Your task to perform on an android device: What's on my calendar today? Image 0: 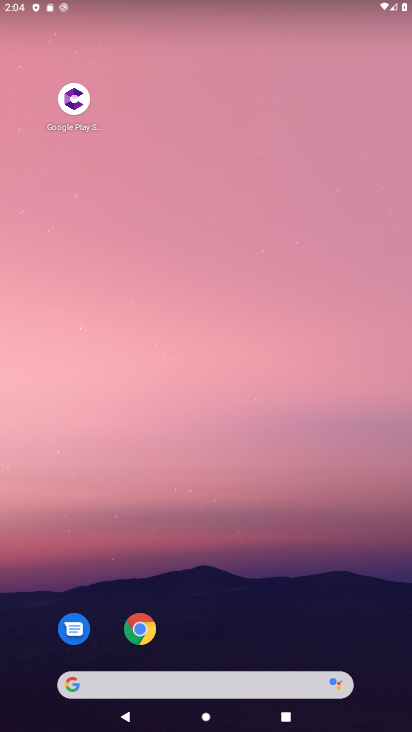
Step 0: drag from (135, 518) to (285, 252)
Your task to perform on an android device: What's on my calendar today? Image 1: 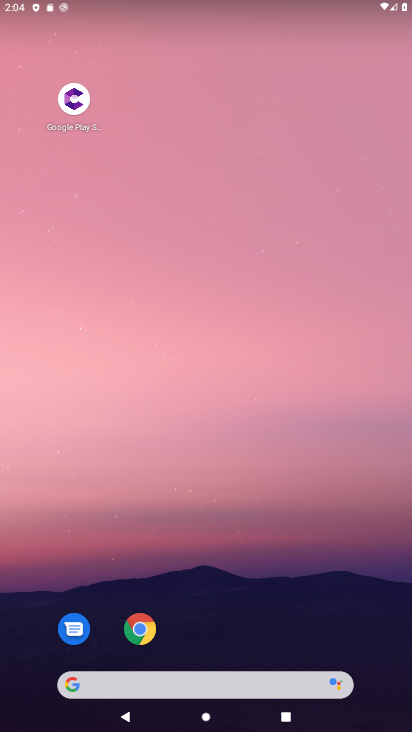
Step 1: drag from (27, 680) to (277, 32)
Your task to perform on an android device: What's on my calendar today? Image 2: 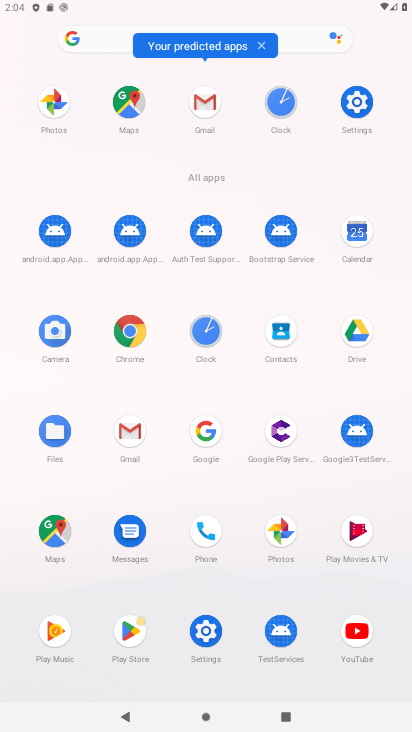
Step 2: click (357, 235)
Your task to perform on an android device: What's on my calendar today? Image 3: 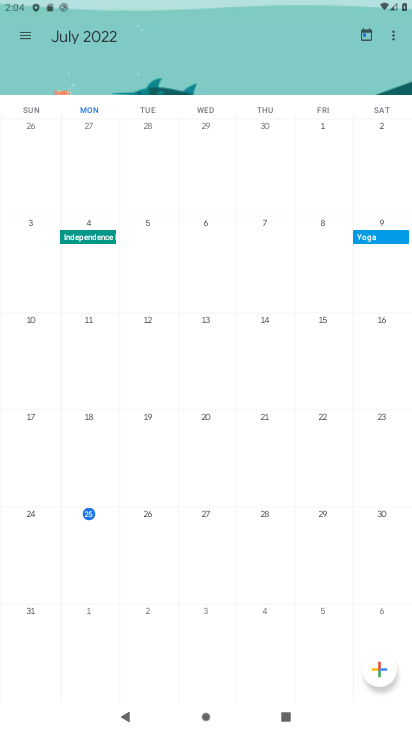
Step 3: task complete